Your task to perform on an android device: Open Google Chrome and click the shortcut for Amazon.com Image 0: 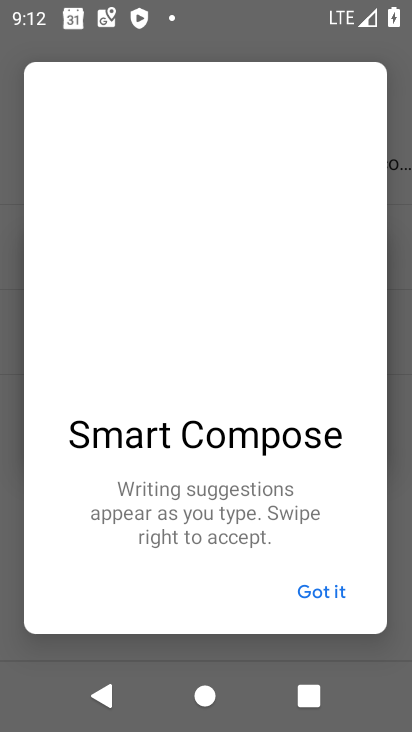
Step 0: press home button
Your task to perform on an android device: Open Google Chrome and click the shortcut for Amazon.com Image 1: 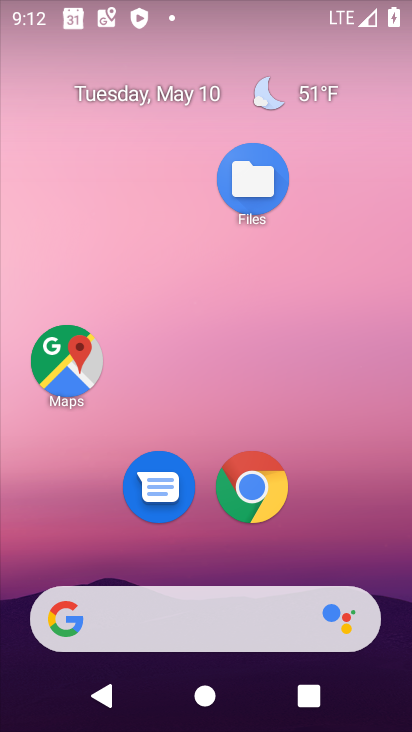
Step 1: click (252, 492)
Your task to perform on an android device: Open Google Chrome and click the shortcut for Amazon.com Image 2: 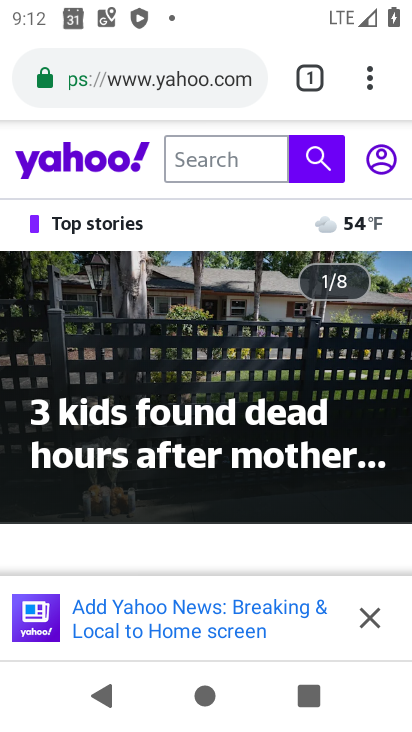
Step 2: press back button
Your task to perform on an android device: Open Google Chrome and click the shortcut for Amazon.com Image 3: 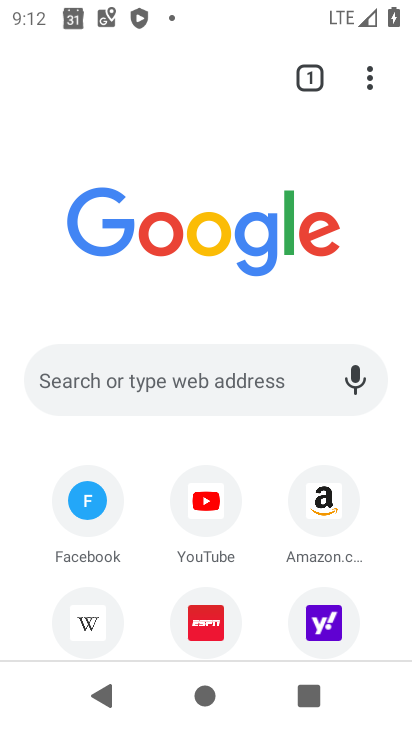
Step 3: click (327, 498)
Your task to perform on an android device: Open Google Chrome and click the shortcut for Amazon.com Image 4: 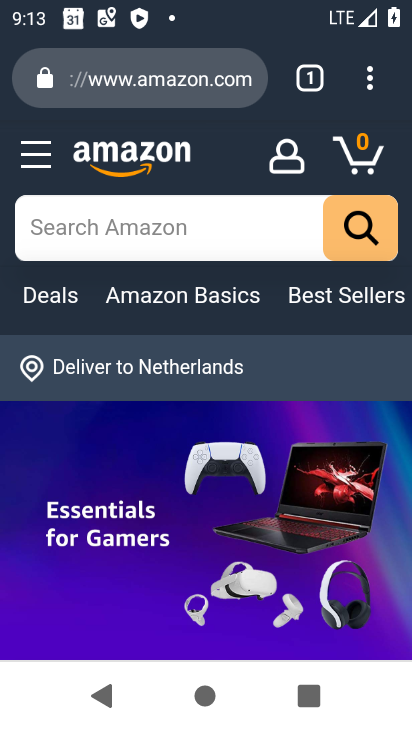
Step 4: task complete